Your task to perform on an android device: Add "asus zenbook" to the cart on target Image 0: 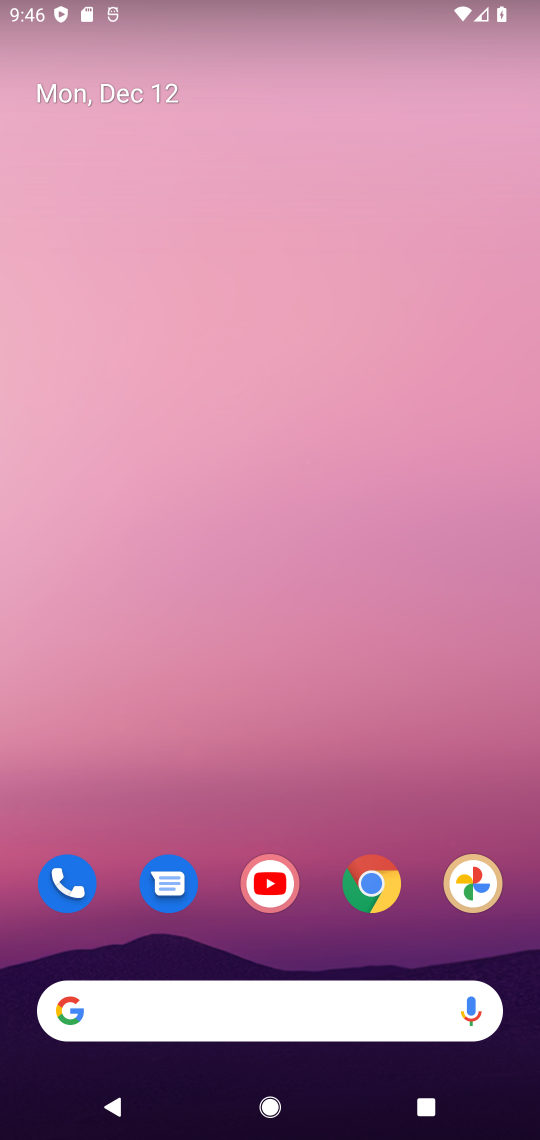
Step 0: click (264, 1001)
Your task to perform on an android device: Add "asus zenbook" to the cart on target Image 1: 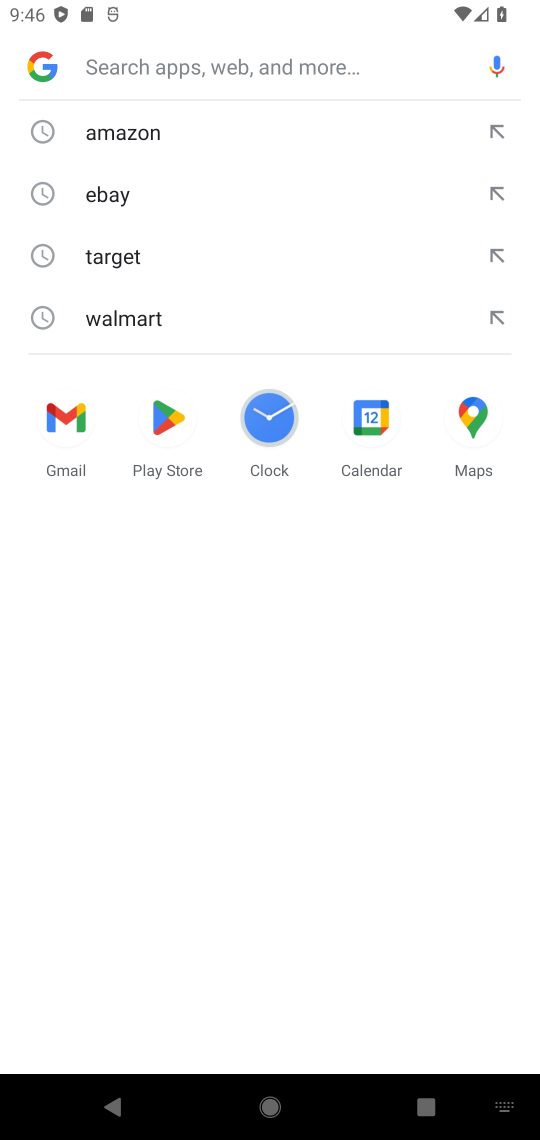
Step 1: click (90, 258)
Your task to perform on an android device: Add "asus zenbook" to the cart on target Image 2: 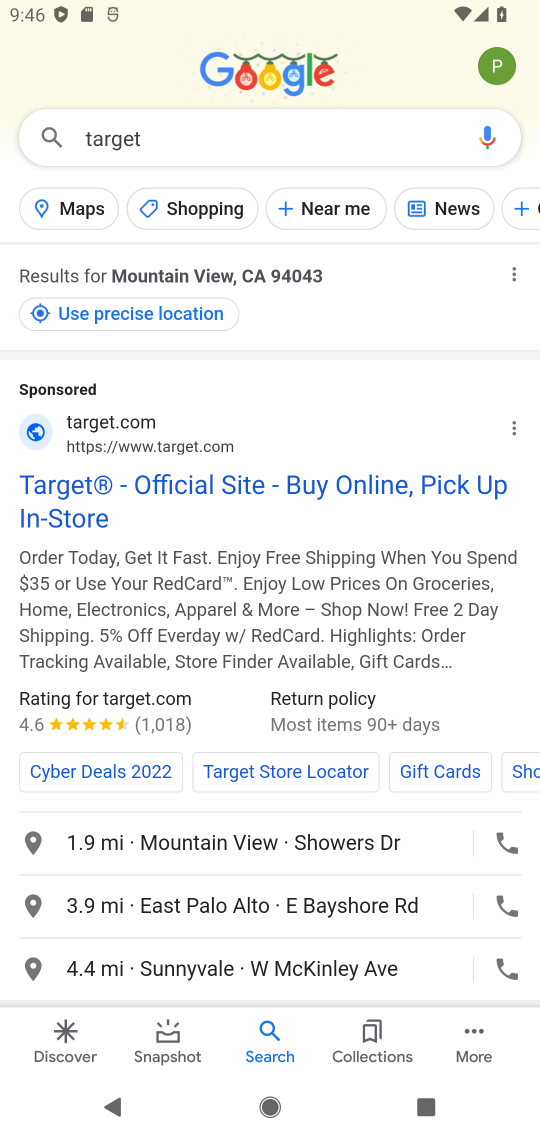
Step 2: drag from (85, 743) to (122, 571)
Your task to perform on an android device: Add "asus zenbook" to the cart on target Image 3: 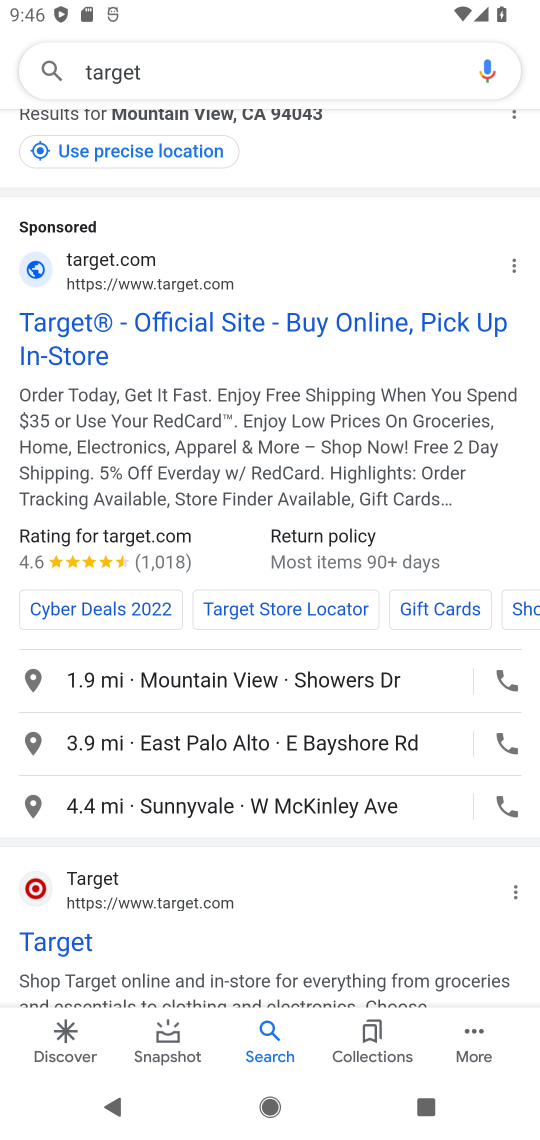
Step 3: click (40, 939)
Your task to perform on an android device: Add "asus zenbook" to the cart on target Image 4: 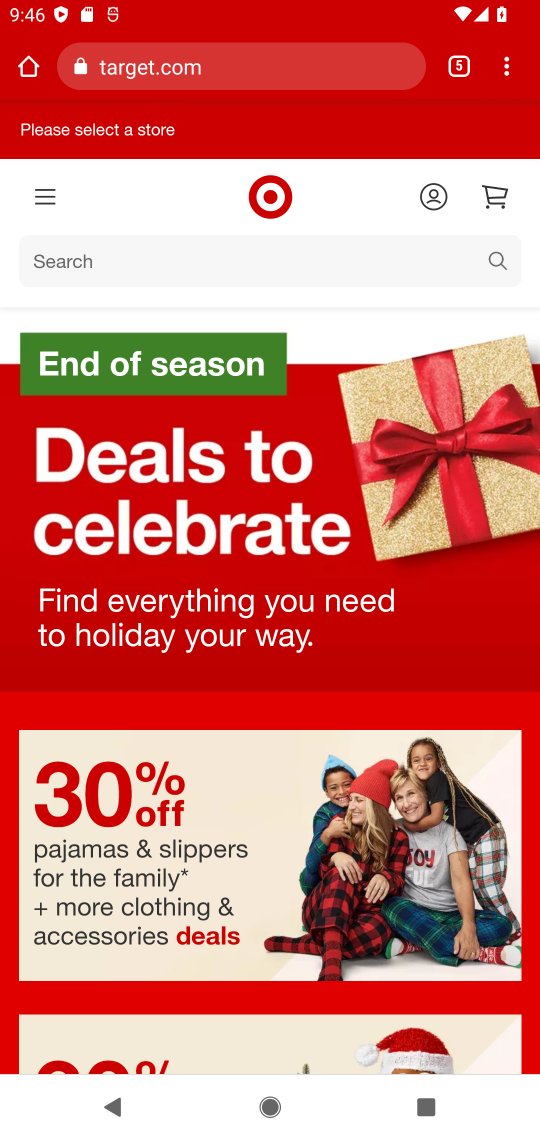
Step 4: click (85, 258)
Your task to perform on an android device: Add "asus zenbook" to the cart on target Image 5: 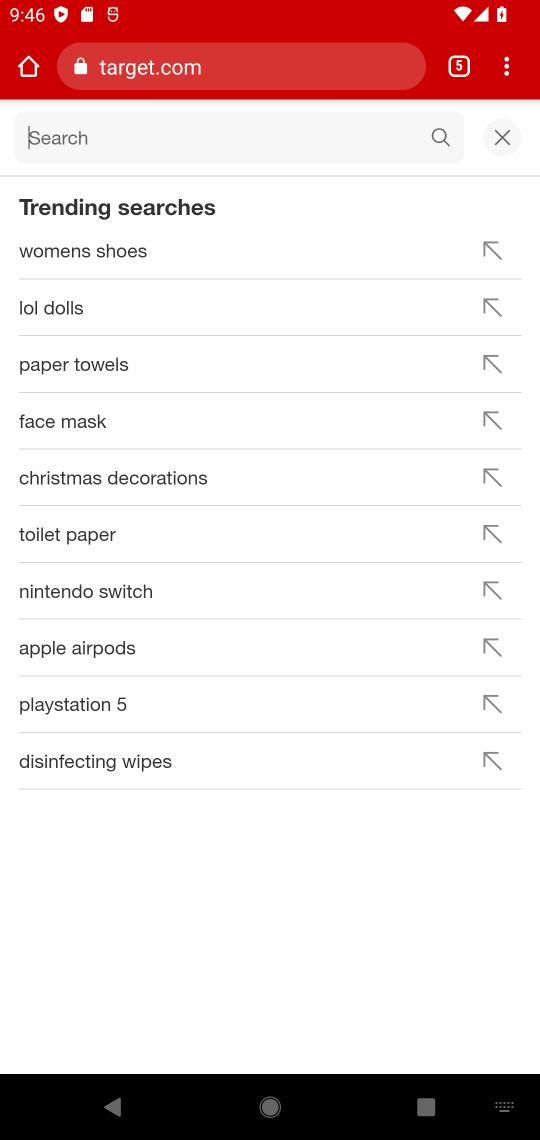
Step 5: type "asus zenbook"
Your task to perform on an android device: Add "asus zenbook" to the cart on target Image 6: 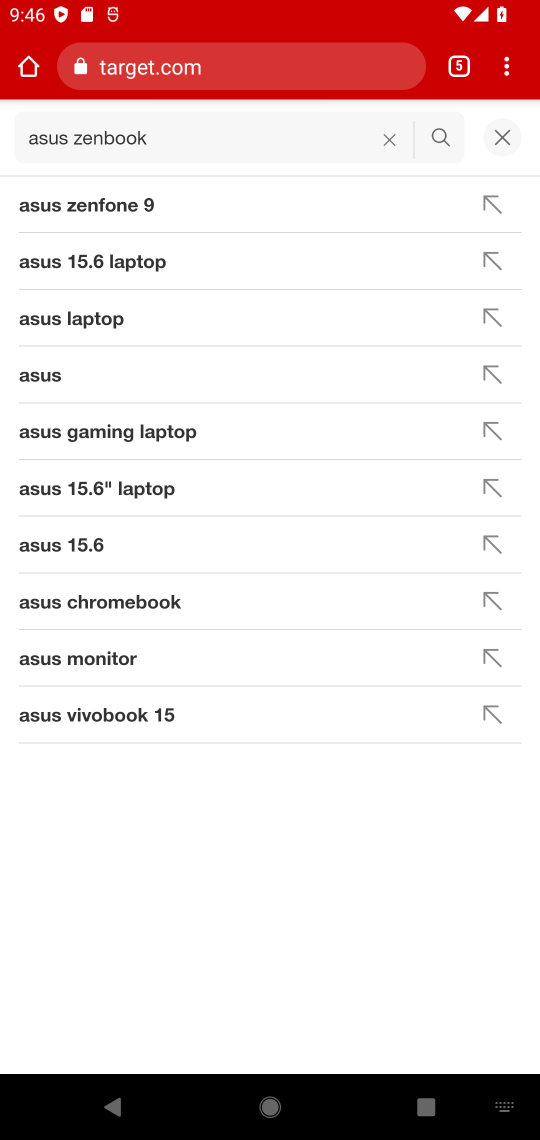
Step 6: drag from (196, 404) to (436, 129)
Your task to perform on an android device: Add "asus zenbook" to the cart on target Image 7: 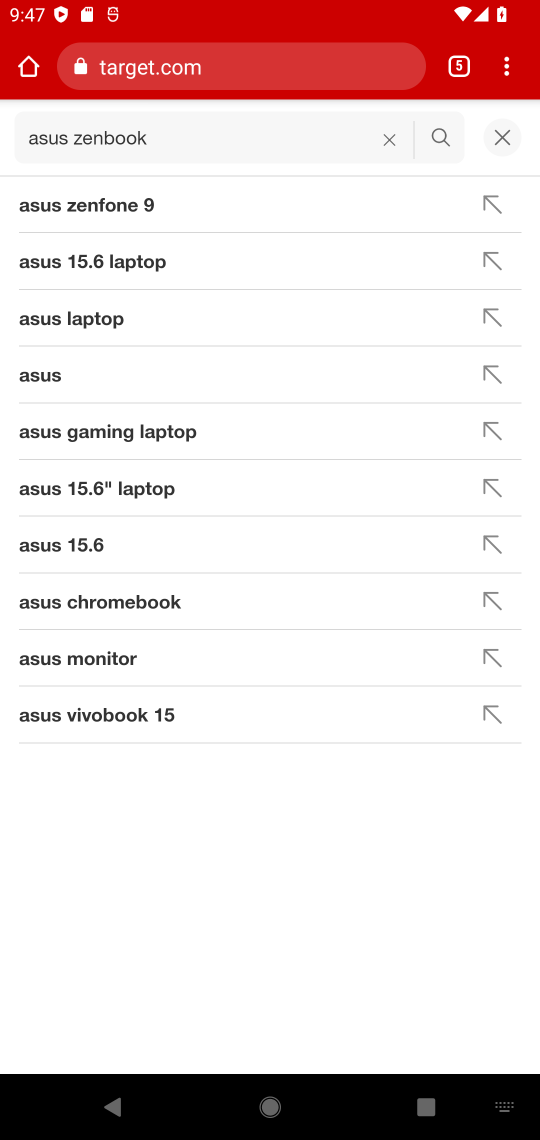
Step 7: click (436, 129)
Your task to perform on an android device: Add "asus zenbook" to the cart on target Image 8: 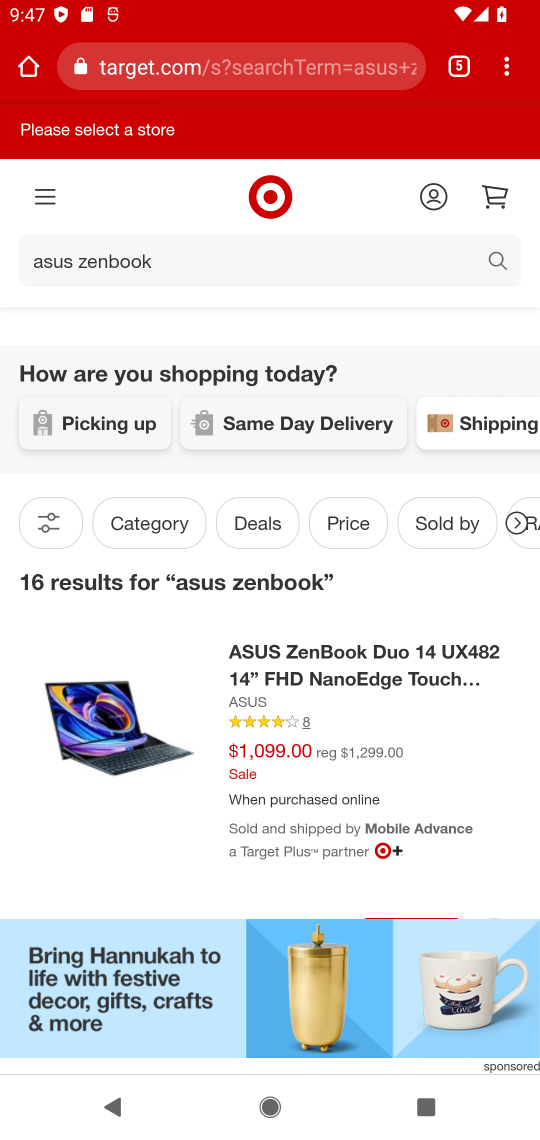
Step 8: click (311, 653)
Your task to perform on an android device: Add "asus zenbook" to the cart on target Image 9: 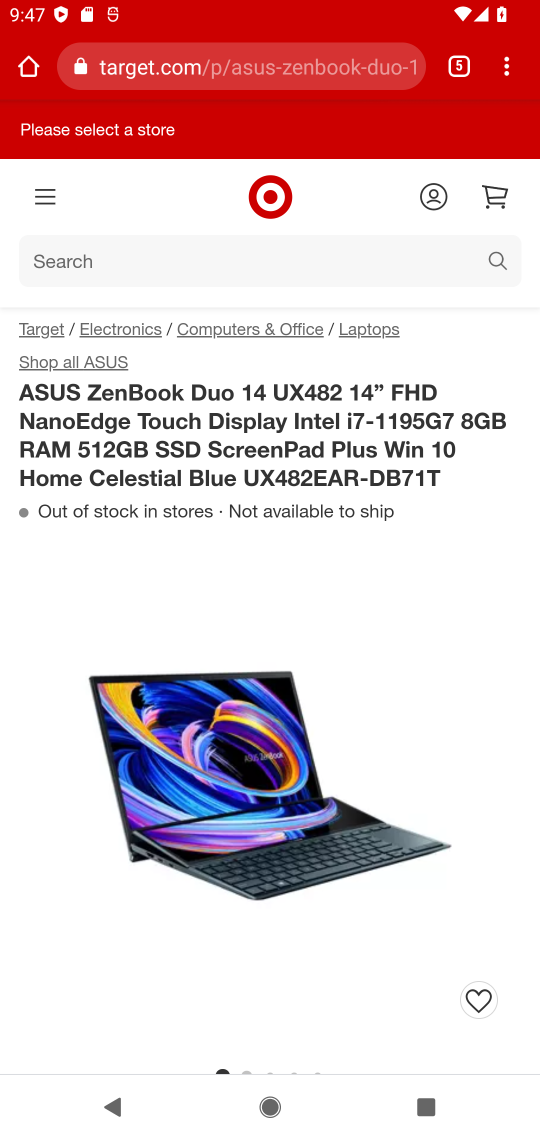
Step 9: drag from (229, 778) to (313, 283)
Your task to perform on an android device: Add "asus zenbook" to the cart on target Image 10: 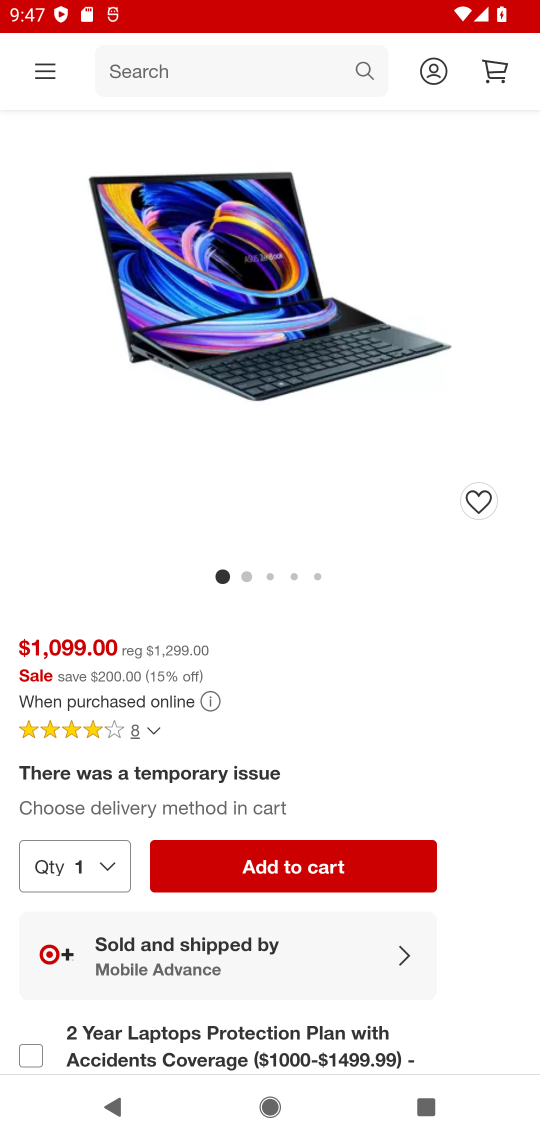
Step 10: click (279, 867)
Your task to perform on an android device: Add "asus zenbook" to the cart on target Image 11: 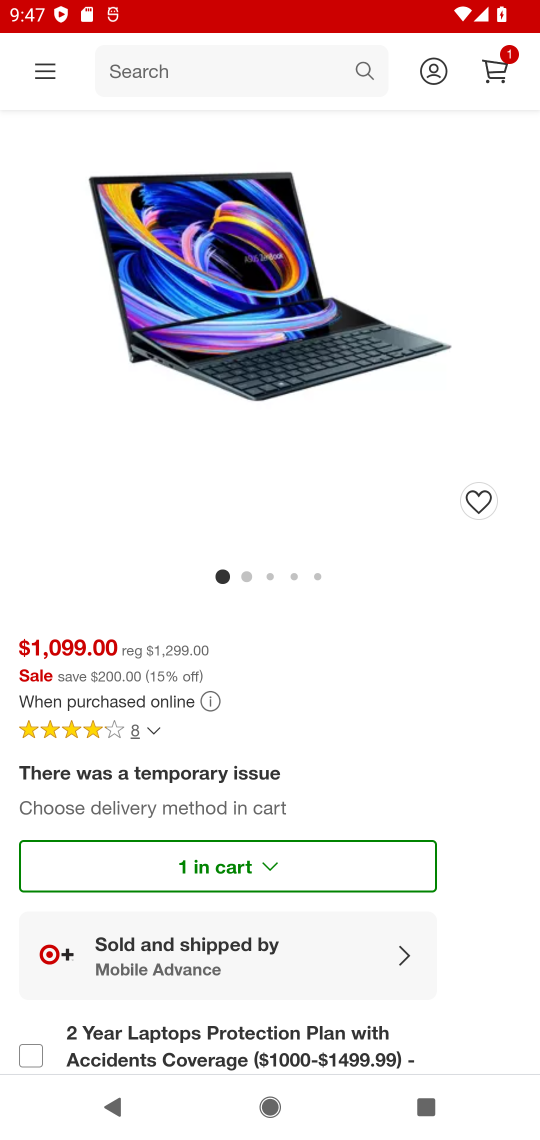
Step 11: task complete